Your task to perform on an android device: Search for pizza restaurants on Maps Image 0: 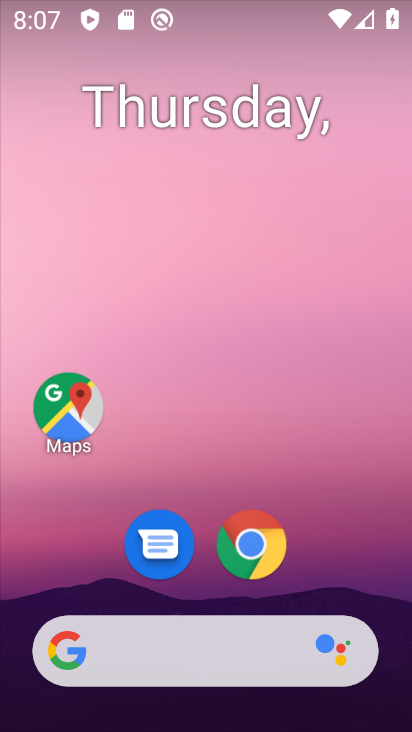
Step 0: click (66, 411)
Your task to perform on an android device: Search for pizza restaurants on Maps Image 1: 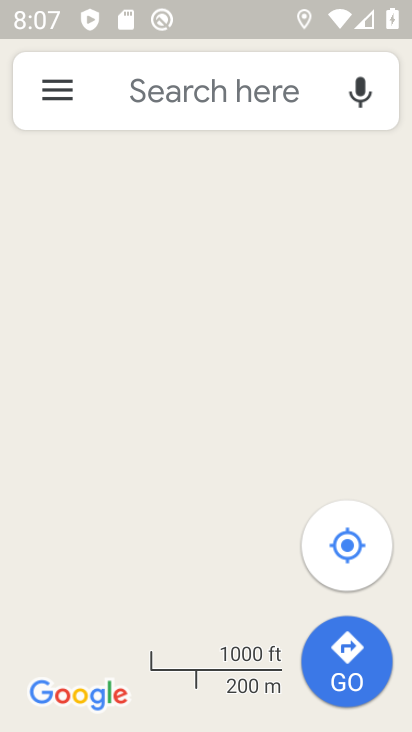
Step 1: click (198, 102)
Your task to perform on an android device: Search for pizza restaurants on Maps Image 2: 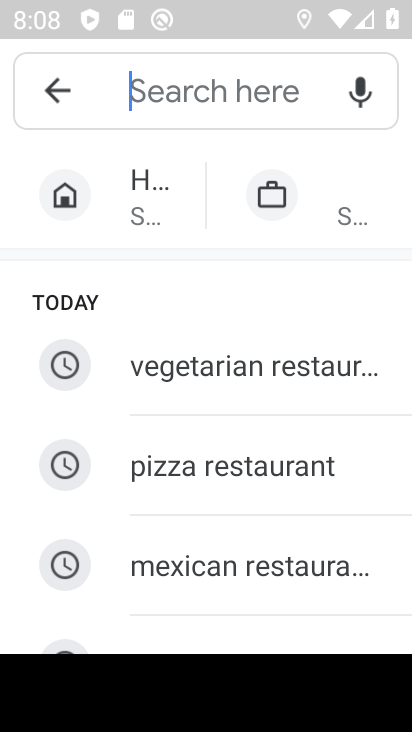
Step 2: type "pizza restaurants"
Your task to perform on an android device: Search for pizza restaurants on Maps Image 3: 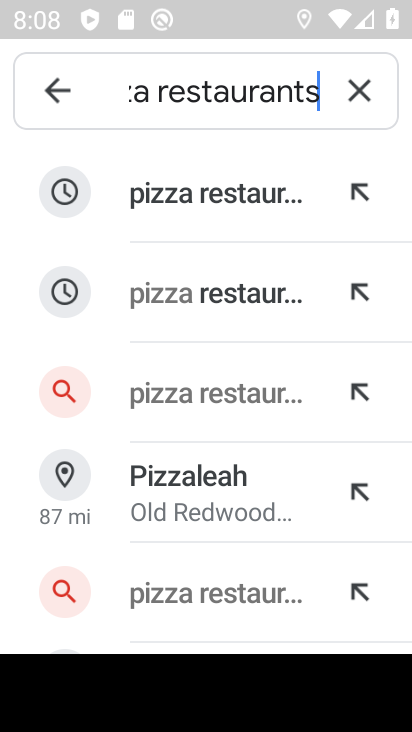
Step 3: click (246, 186)
Your task to perform on an android device: Search for pizza restaurants on Maps Image 4: 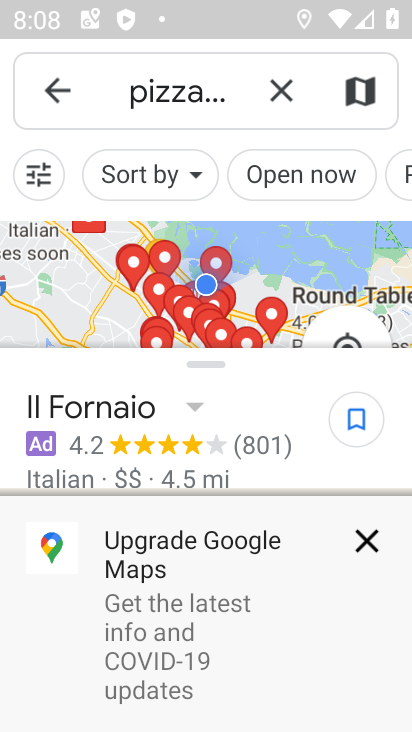
Step 4: click (364, 541)
Your task to perform on an android device: Search for pizza restaurants on Maps Image 5: 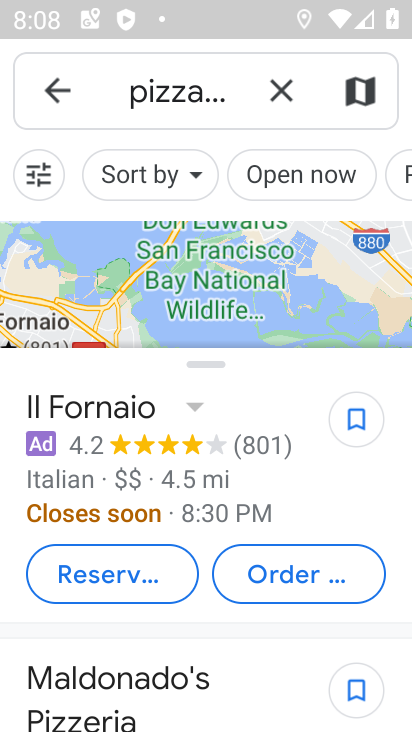
Step 5: task complete